Your task to perform on an android device: remove spam from my inbox in the gmail app Image 0: 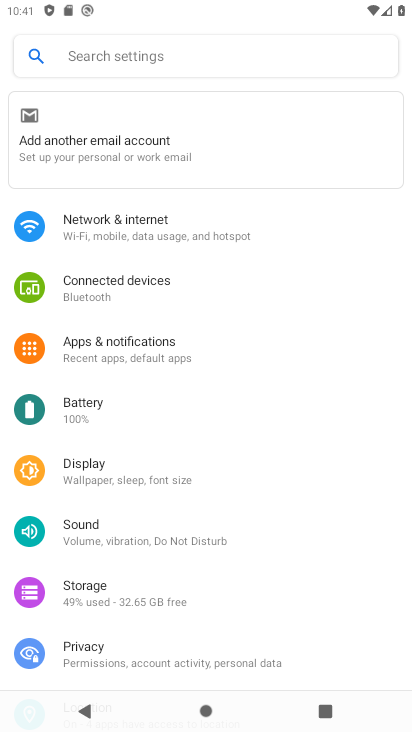
Step 0: press home button
Your task to perform on an android device: remove spam from my inbox in the gmail app Image 1: 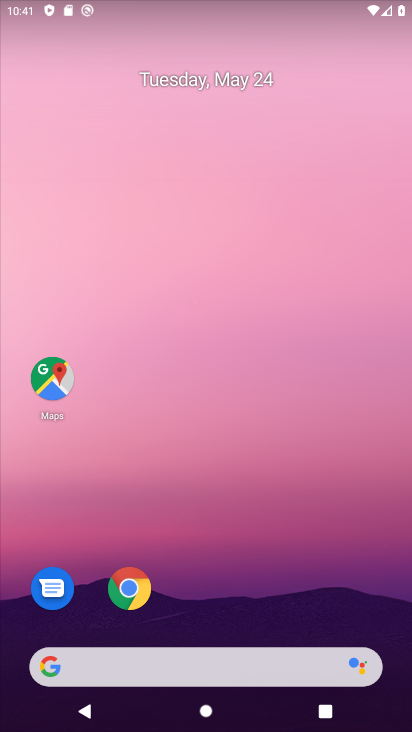
Step 1: drag from (253, 623) to (206, 37)
Your task to perform on an android device: remove spam from my inbox in the gmail app Image 2: 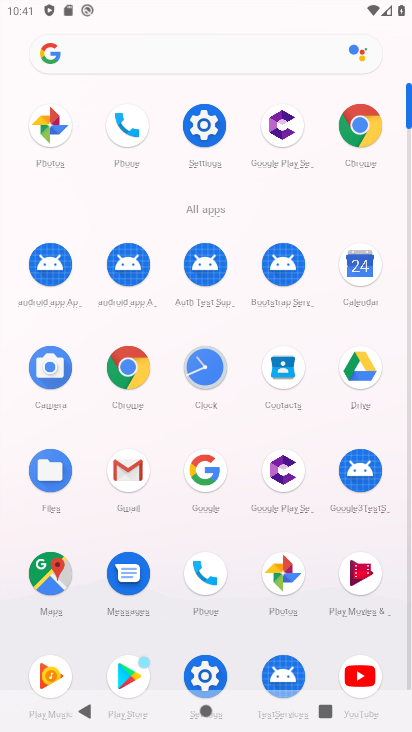
Step 2: click (144, 476)
Your task to perform on an android device: remove spam from my inbox in the gmail app Image 3: 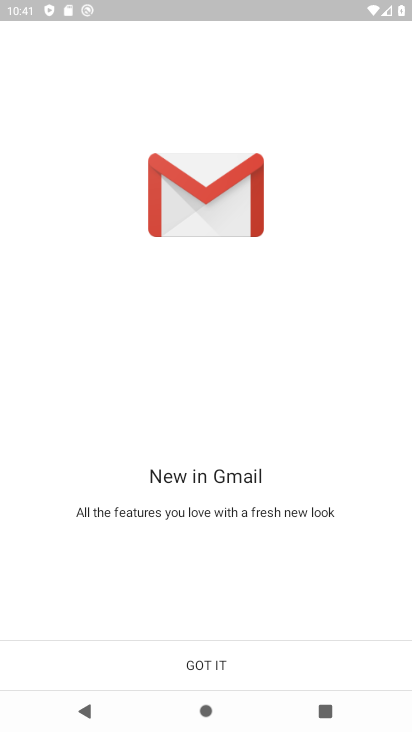
Step 3: click (207, 666)
Your task to perform on an android device: remove spam from my inbox in the gmail app Image 4: 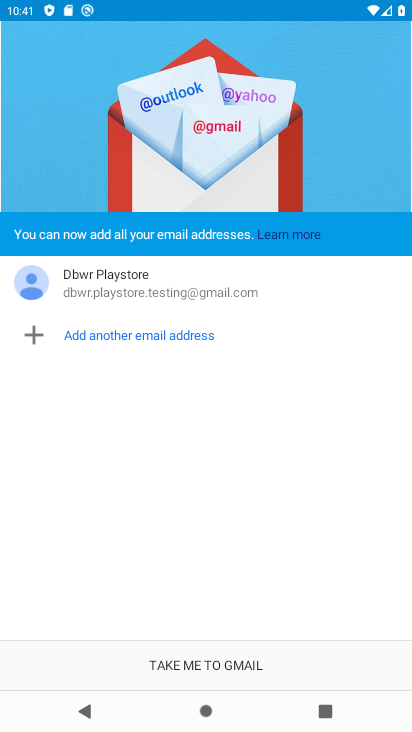
Step 4: click (207, 666)
Your task to perform on an android device: remove spam from my inbox in the gmail app Image 5: 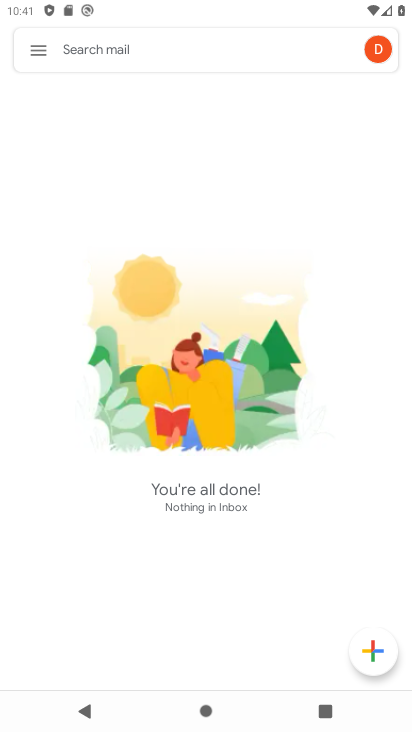
Step 5: click (35, 50)
Your task to perform on an android device: remove spam from my inbox in the gmail app Image 6: 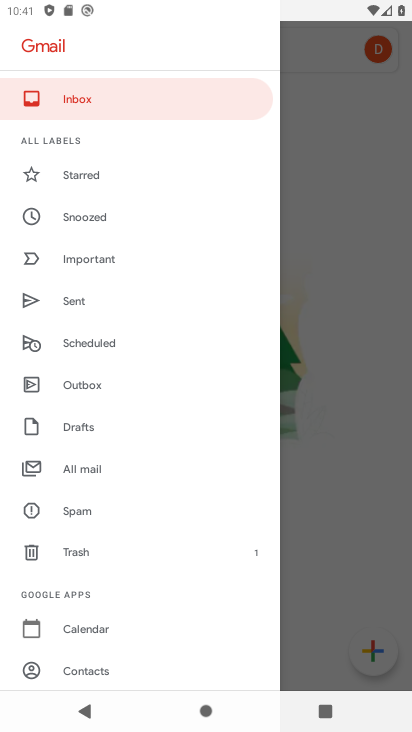
Step 6: click (97, 511)
Your task to perform on an android device: remove spam from my inbox in the gmail app Image 7: 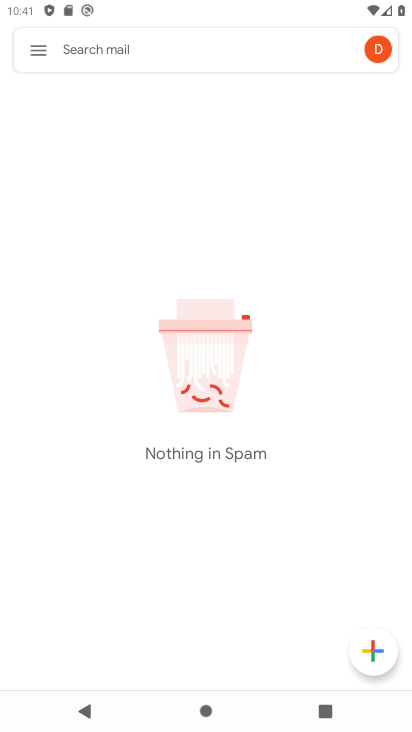
Step 7: task complete